Your task to perform on an android device: Open my contact list Image 0: 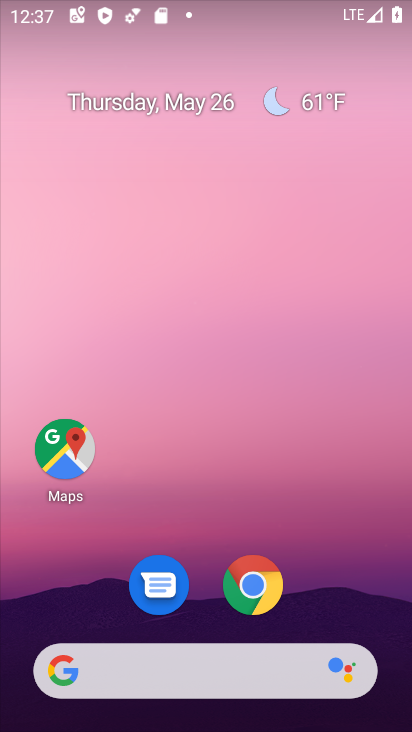
Step 0: drag from (240, 502) to (249, 88)
Your task to perform on an android device: Open my contact list Image 1: 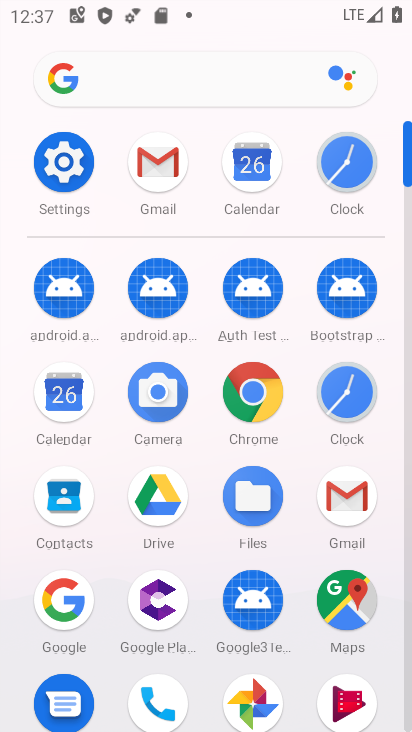
Step 1: click (71, 492)
Your task to perform on an android device: Open my contact list Image 2: 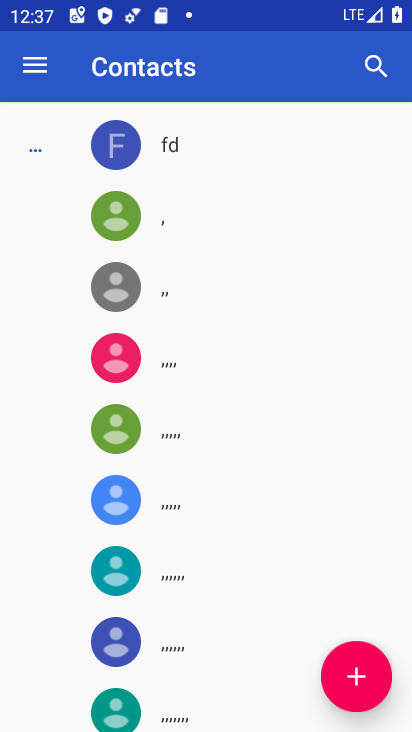
Step 2: task complete